Your task to perform on an android device: turn on sleep mode Image 0: 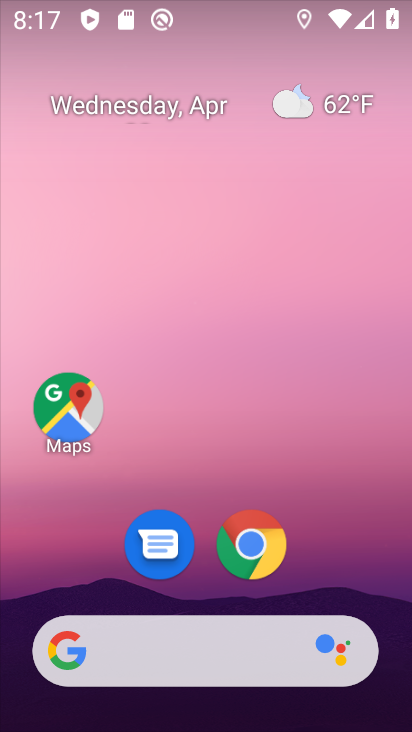
Step 0: drag from (343, 528) to (44, 179)
Your task to perform on an android device: turn on sleep mode Image 1: 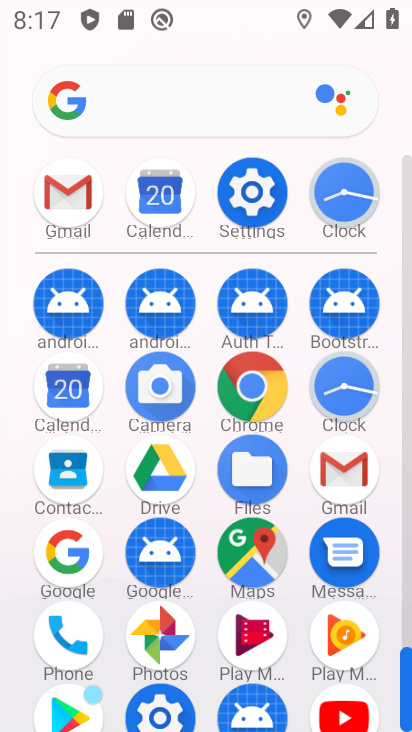
Step 1: click (233, 196)
Your task to perform on an android device: turn on sleep mode Image 2: 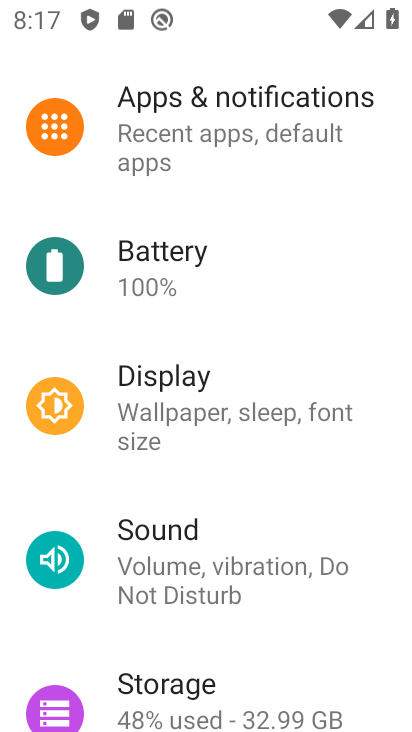
Step 2: click (164, 407)
Your task to perform on an android device: turn on sleep mode Image 3: 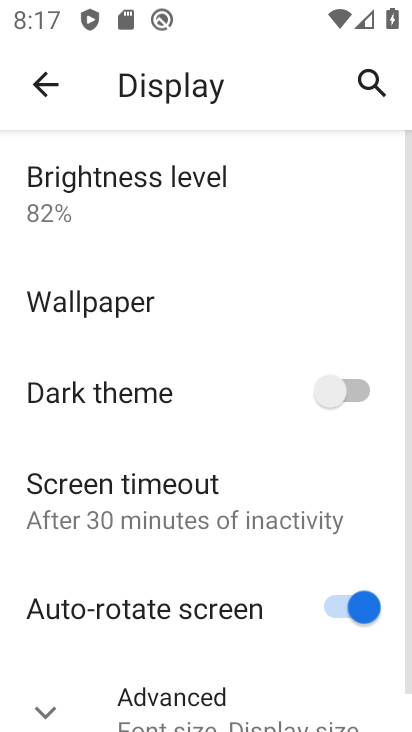
Step 3: drag from (174, 569) to (201, 300)
Your task to perform on an android device: turn on sleep mode Image 4: 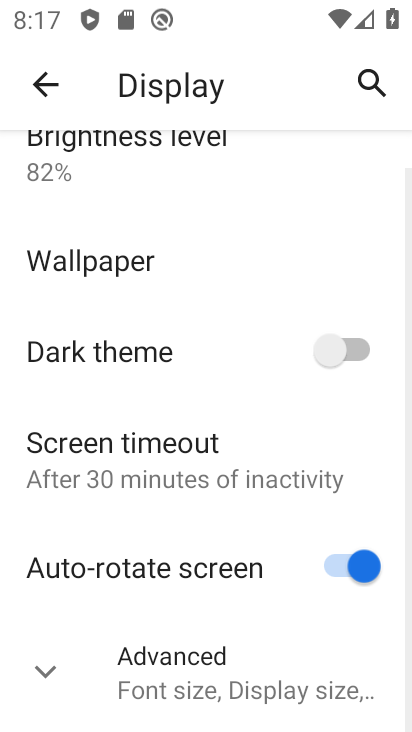
Step 4: click (156, 677)
Your task to perform on an android device: turn on sleep mode Image 5: 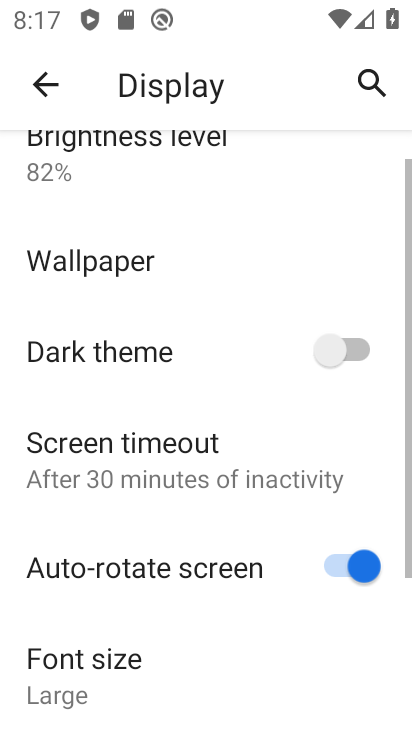
Step 5: task complete